Your task to perform on an android device: check android version Image 0: 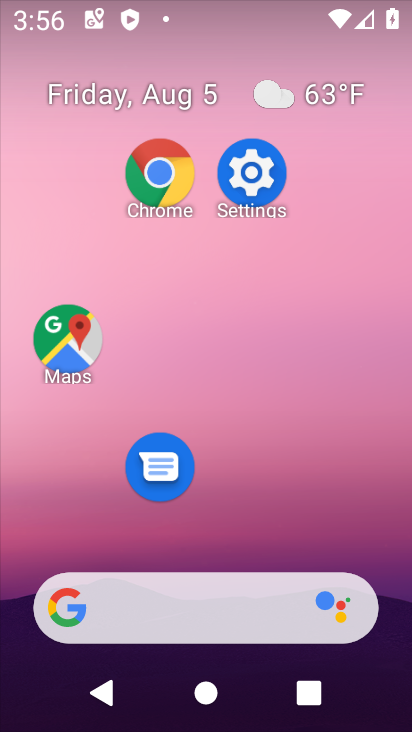
Step 0: drag from (236, 475) to (190, 0)
Your task to perform on an android device: check android version Image 1: 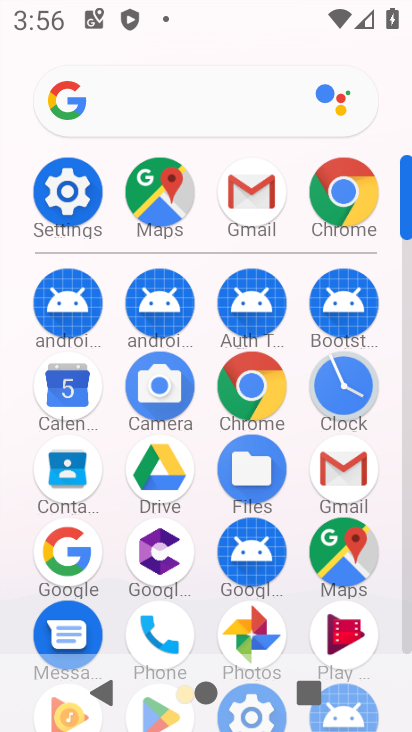
Step 1: click (60, 181)
Your task to perform on an android device: check android version Image 2: 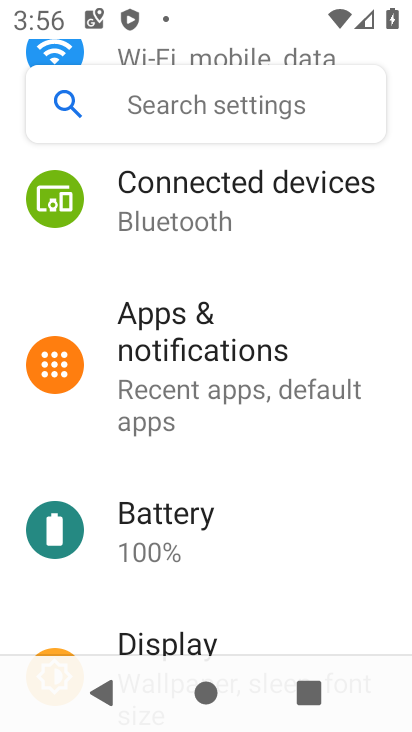
Step 2: drag from (226, 550) to (183, 1)
Your task to perform on an android device: check android version Image 3: 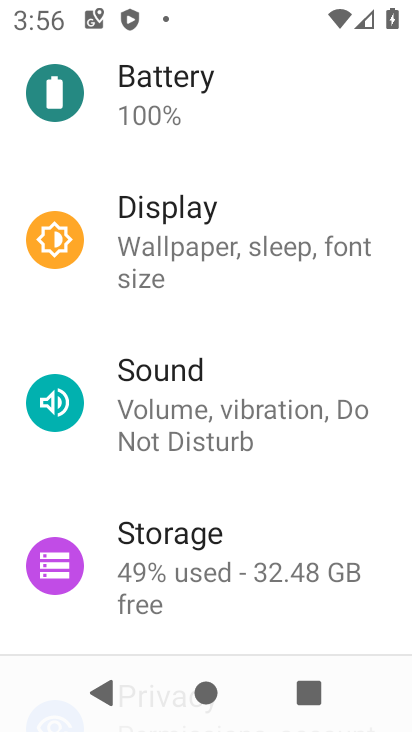
Step 3: drag from (216, 519) to (221, 15)
Your task to perform on an android device: check android version Image 4: 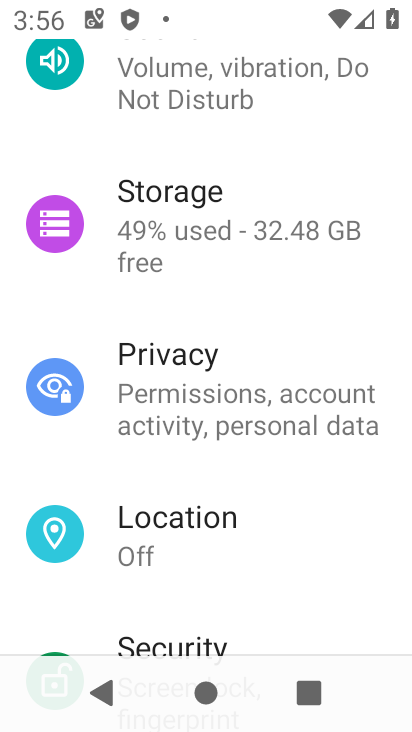
Step 4: drag from (238, 619) to (259, 71)
Your task to perform on an android device: check android version Image 5: 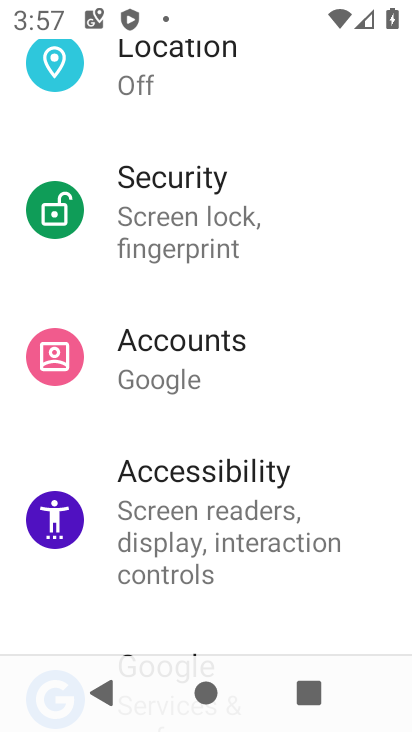
Step 5: drag from (226, 608) to (225, 10)
Your task to perform on an android device: check android version Image 6: 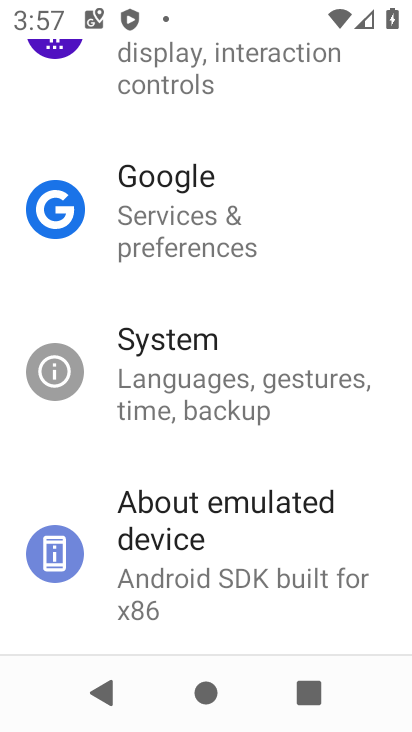
Step 6: click (166, 543)
Your task to perform on an android device: check android version Image 7: 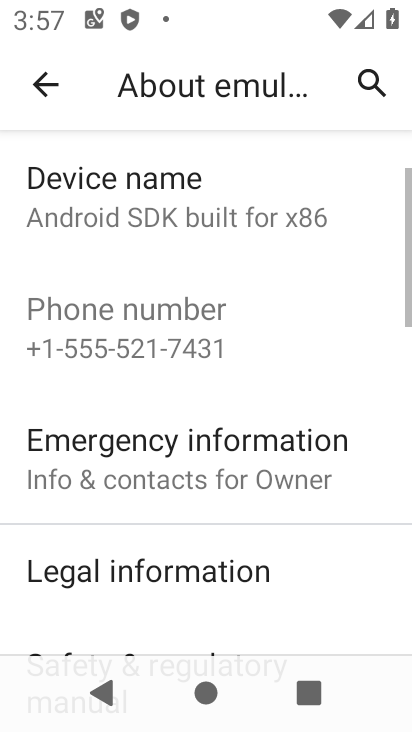
Step 7: drag from (183, 532) to (164, 148)
Your task to perform on an android device: check android version Image 8: 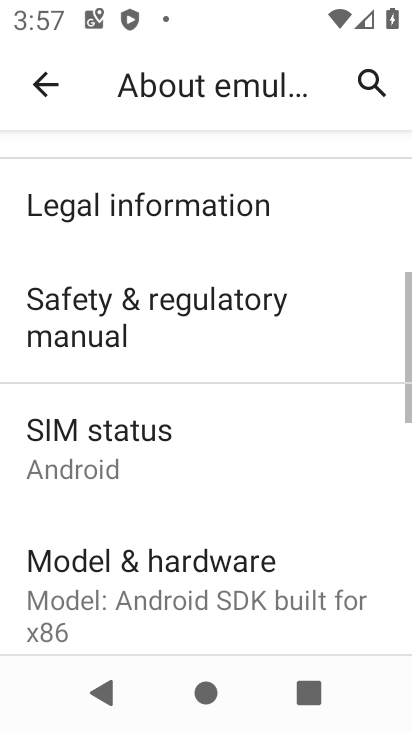
Step 8: drag from (161, 552) to (155, 263)
Your task to perform on an android device: check android version Image 9: 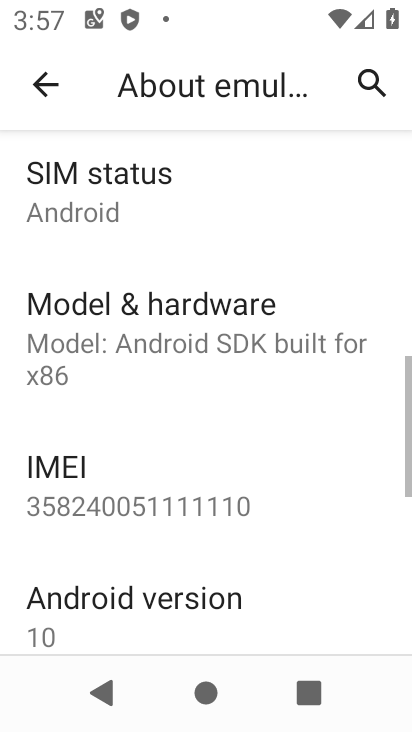
Step 9: click (125, 609)
Your task to perform on an android device: check android version Image 10: 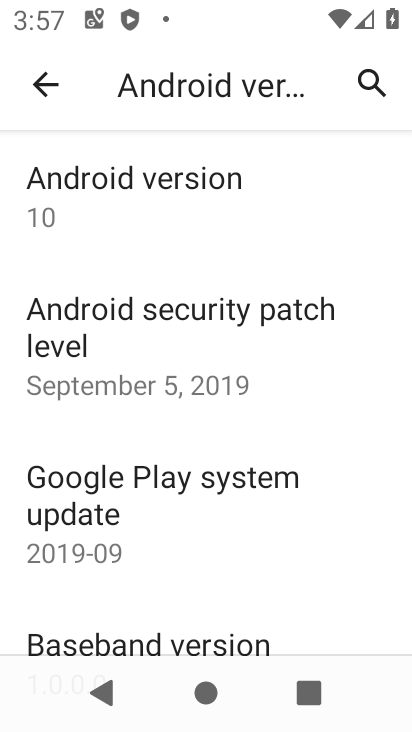
Step 10: task complete